Your task to perform on an android device: move an email to a new category in the gmail app Image 0: 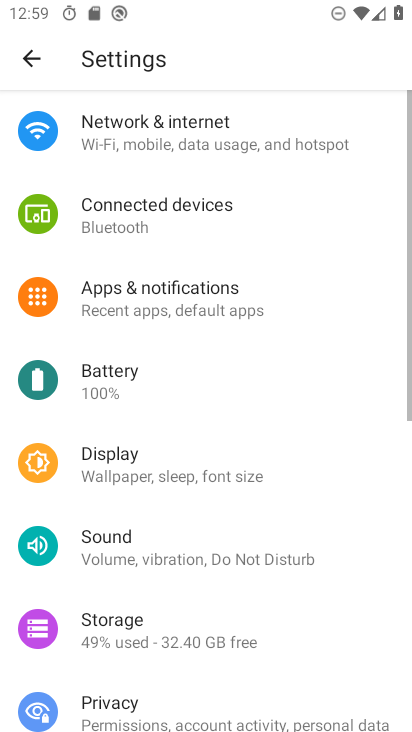
Step 0: press home button
Your task to perform on an android device: move an email to a new category in the gmail app Image 1: 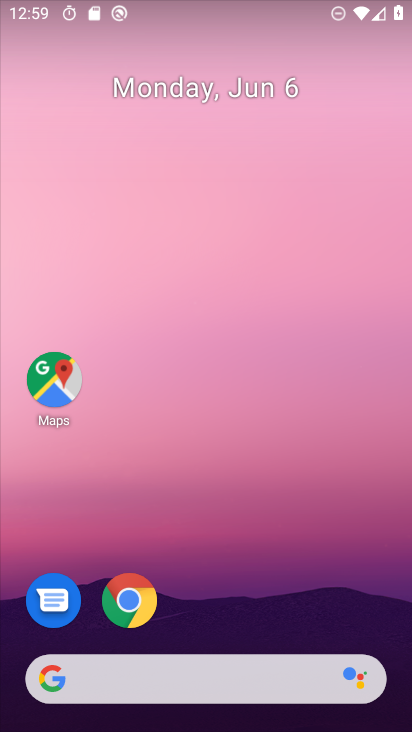
Step 1: drag from (231, 597) to (239, 182)
Your task to perform on an android device: move an email to a new category in the gmail app Image 2: 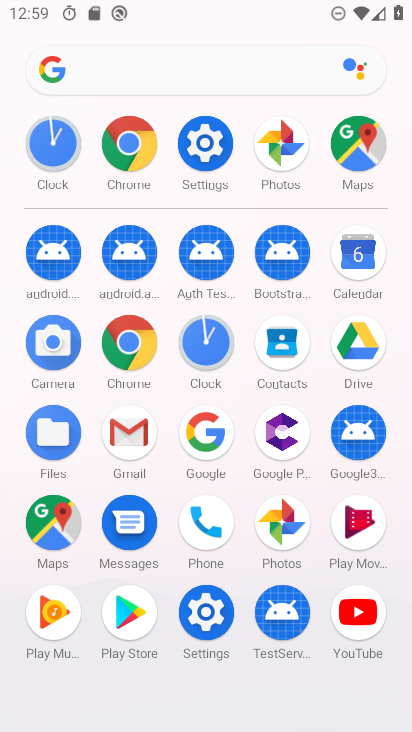
Step 2: click (127, 452)
Your task to perform on an android device: move an email to a new category in the gmail app Image 3: 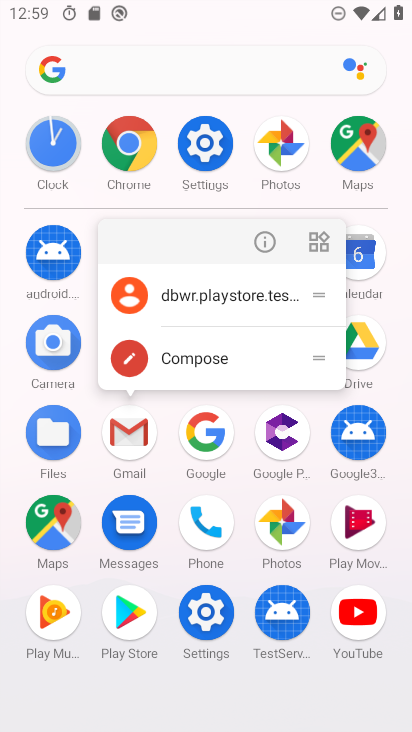
Step 3: click (117, 425)
Your task to perform on an android device: move an email to a new category in the gmail app Image 4: 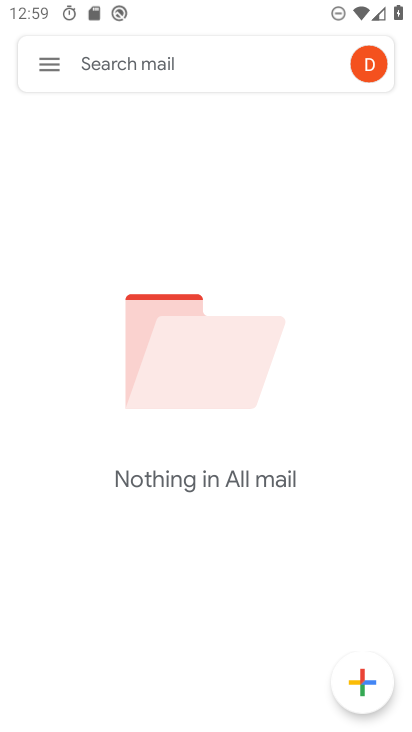
Step 4: click (44, 71)
Your task to perform on an android device: move an email to a new category in the gmail app Image 5: 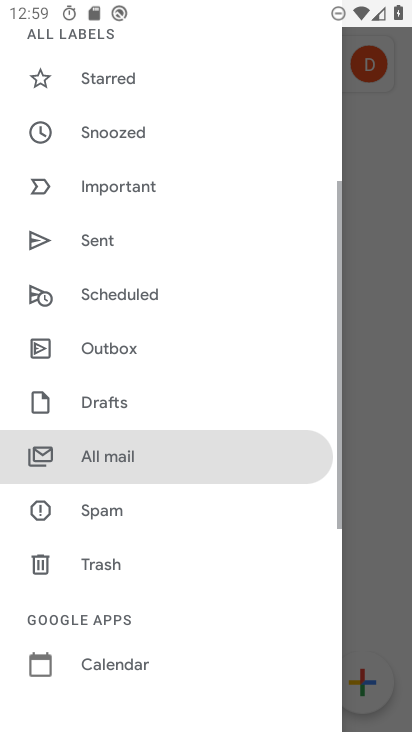
Step 5: click (360, 271)
Your task to perform on an android device: move an email to a new category in the gmail app Image 6: 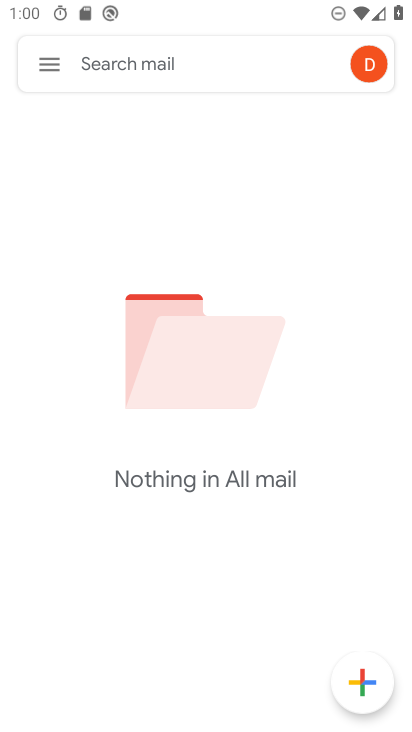
Step 6: click (51, 63)
Your task to perform on an android device: move an email to a new category in the gmail app Image 7: 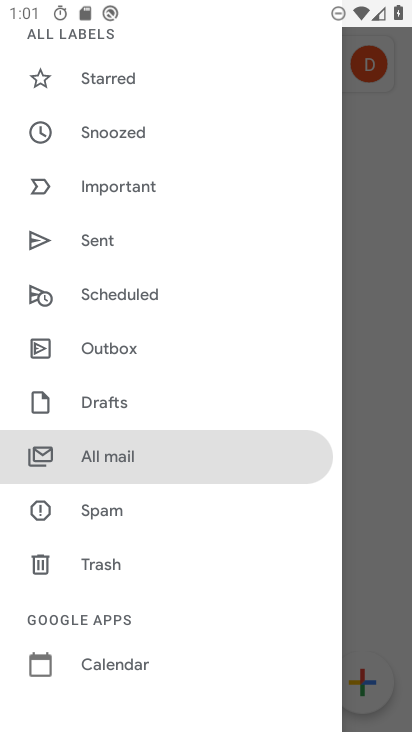
Step 7: drag from (153, 579) to (189, 395)
Your task to perform on an android device: move an email to a new category in the gmail app Image 8: 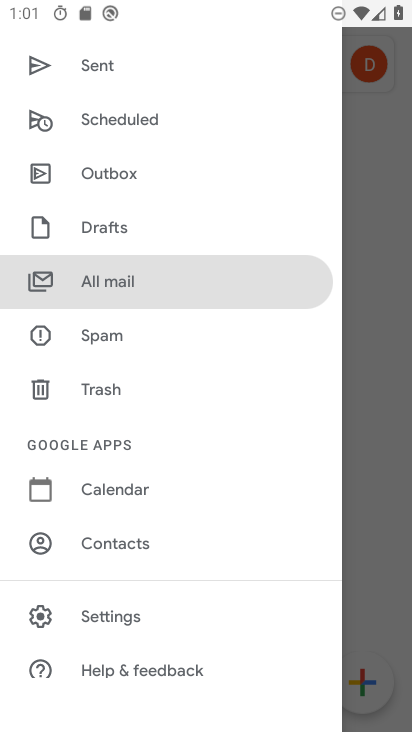
Step 8: click (177, 272)
Your task to perform on an android device: move an email to a new category in the gmail app Image 9: 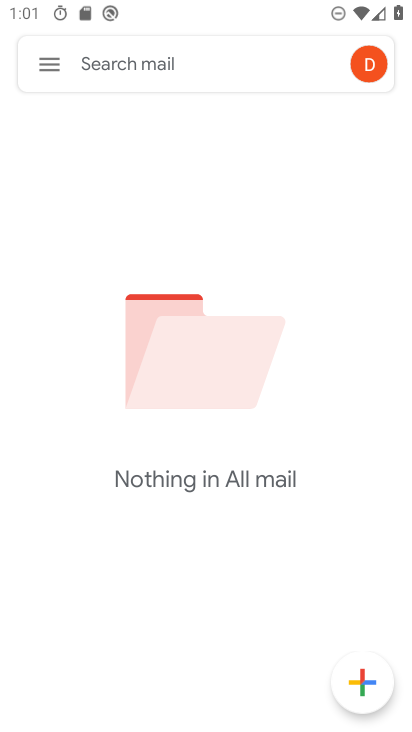
Step 9: task complete